Your task to perform on an android device: What is the news today? Image 0: 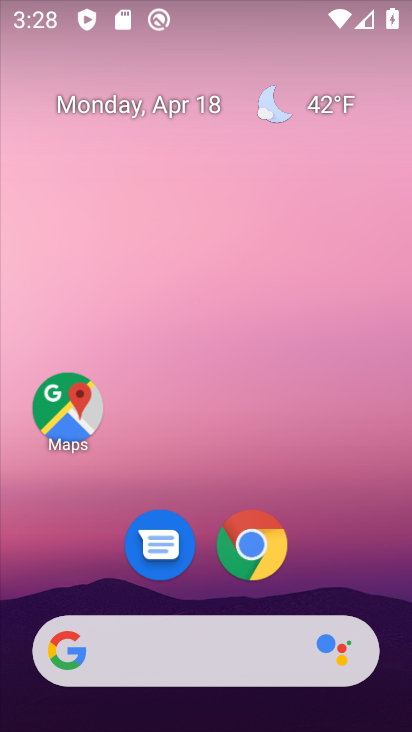
Step 0: drag from (8, 231) to (392, 297)
Your task to perform on an android device: What is the news today? Image 1: 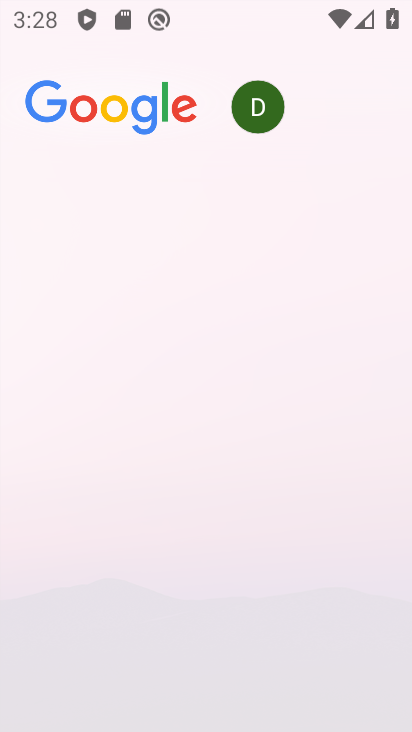
Step 1: task complete